Your task to perform on an android device: turn off sleep mode Image 0: 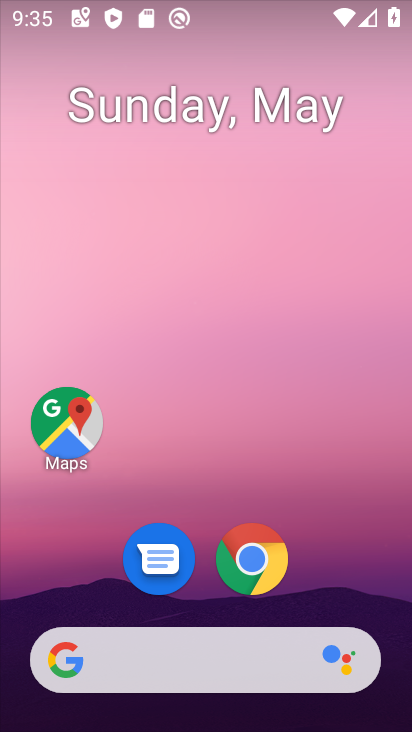
Step 0: press home button
Your task to perform on an android device: turn off sleep mode Image 1: 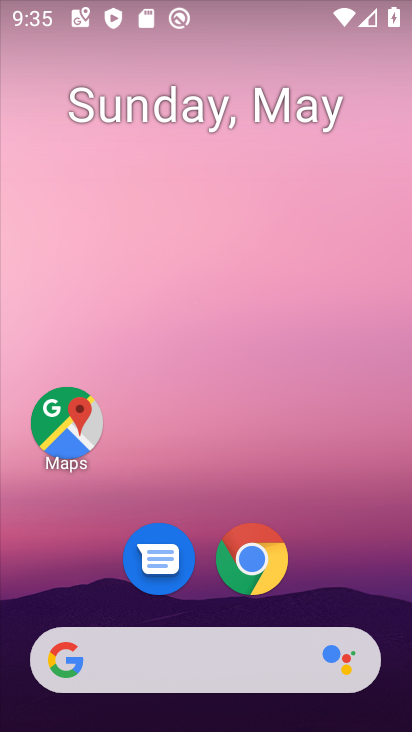
Step 1: drag from (346, 492) to (284, 29)
Your task to perform on an android device: turn off sleep mode Image 2: 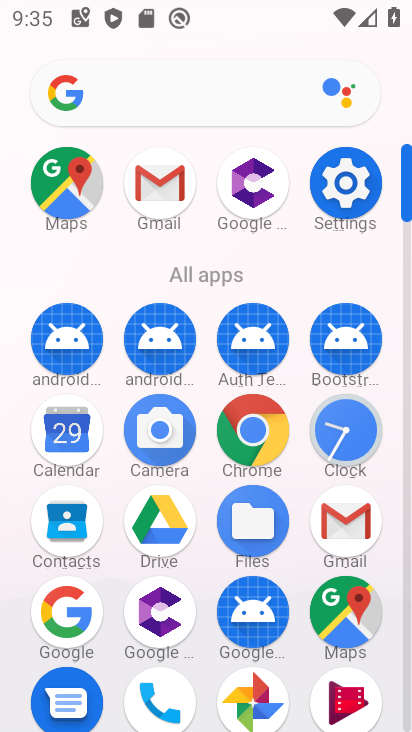
Step 2: click (354, 196)
Your task to perform on an android device: turn off sleep mode Image 3: 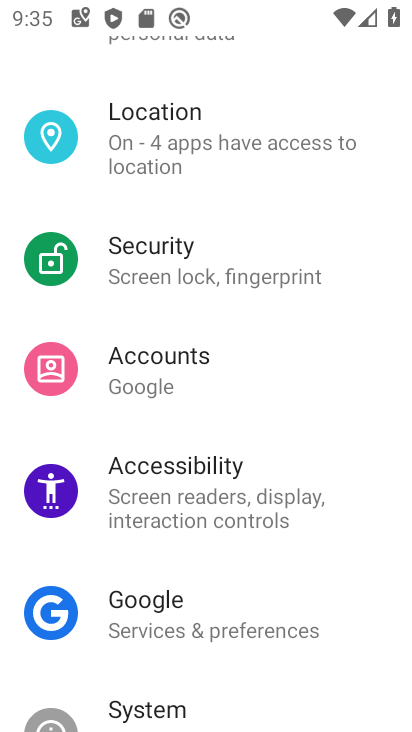
Step 3: drag from (367, 122) to (349, 629)
Your task to perform on an android device: turn off sleep mode Image 4: 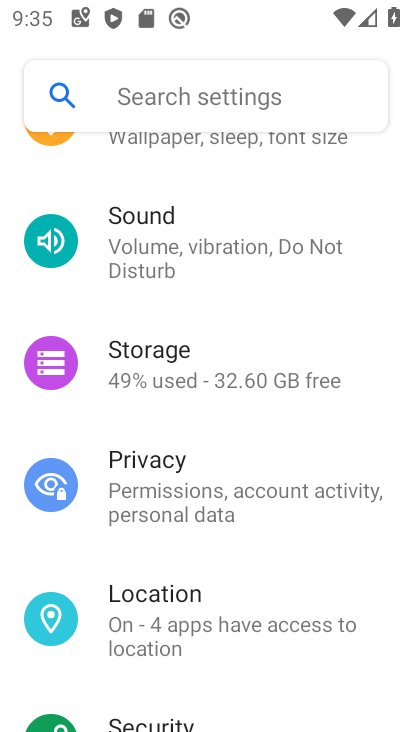
Step 4: drag from (258, 282) to (265, 545)
Your task to perform on an android device: turn off sleep mode Image 5: 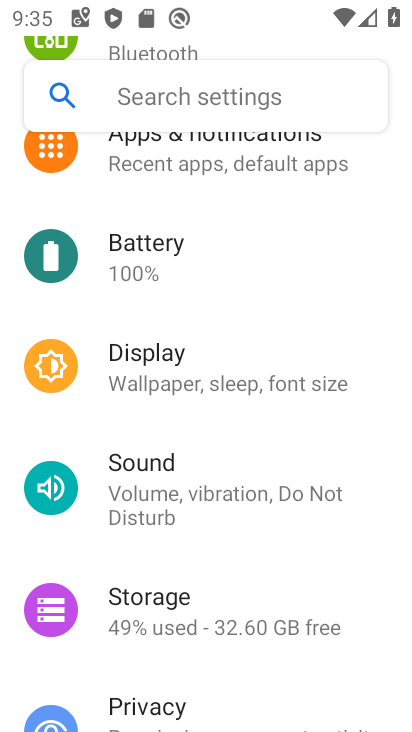
Step 5: click (159, 377)
Your task to perform on an android device: turn off sleep mode Image 6: 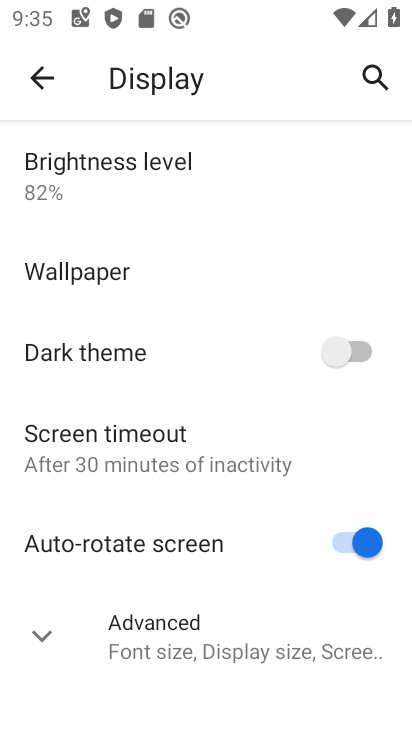
Step 6: drag from (299, 318) to (307, 5)
Your task to perform on an android device: turn off sleep mode Image 7: 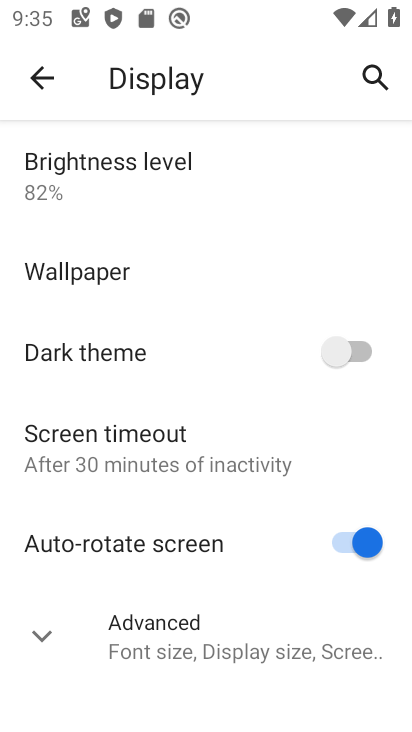
Step 7: click (38, 80)
Your task to perform on an android device: turn off sleep mode Image 8: 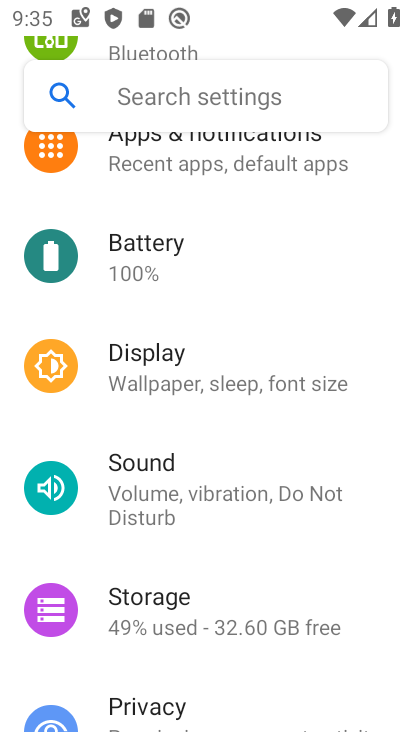
Step 8: task complete